Your task to perform on an android device: Go to Android settings Image 0: 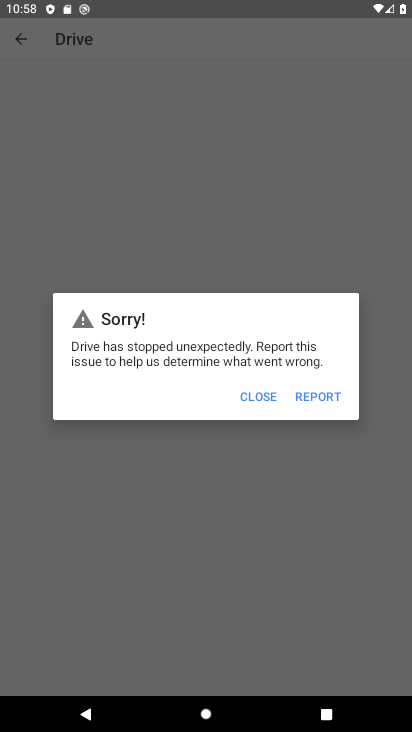
Step 0: press home button
Your task to perform on an android device: Go to Android settings Image 1: 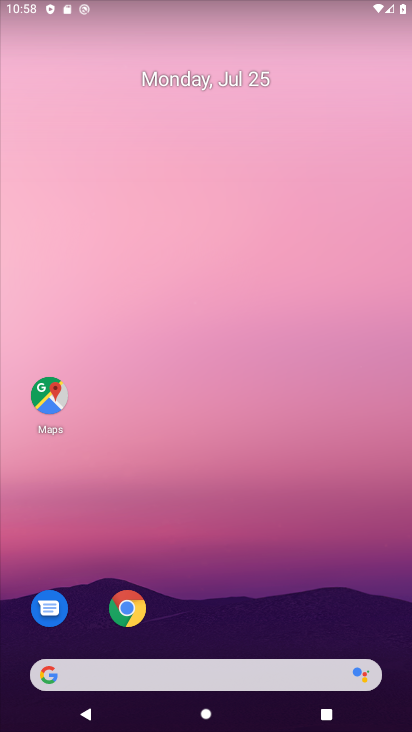
Step 1: drag from (211, 683) to (141, 75)
Your task to perform on an android device: Go to Android settings Image 2: 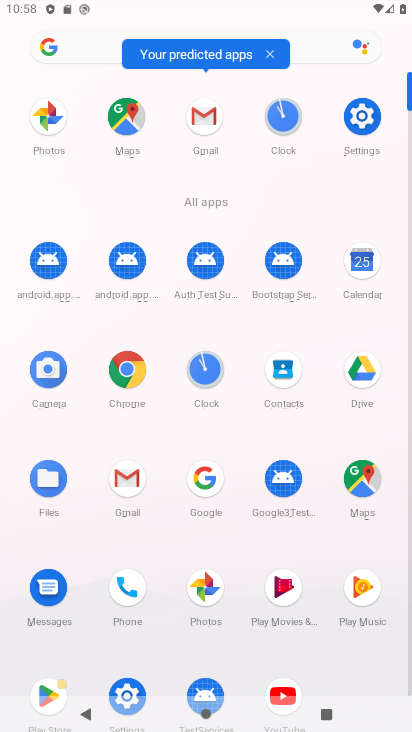
Step 2: click (349, 122)
Your task to perform on an android device: Go to Android settings Image 3: 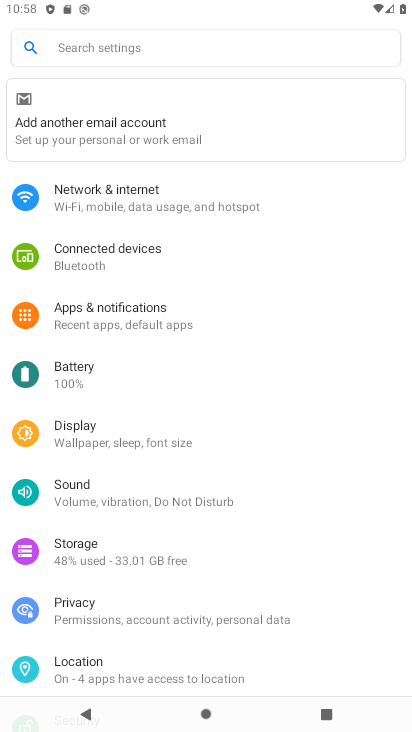
Step 3: task complete